Your task to perform on an android device: When is my next appointment? Image 0: 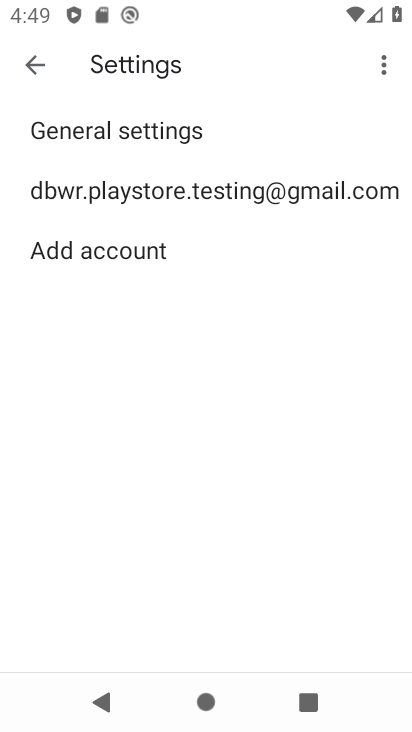
Step 0: press home button
Your task to perform on an android device: When is my next appointment? Image 1: 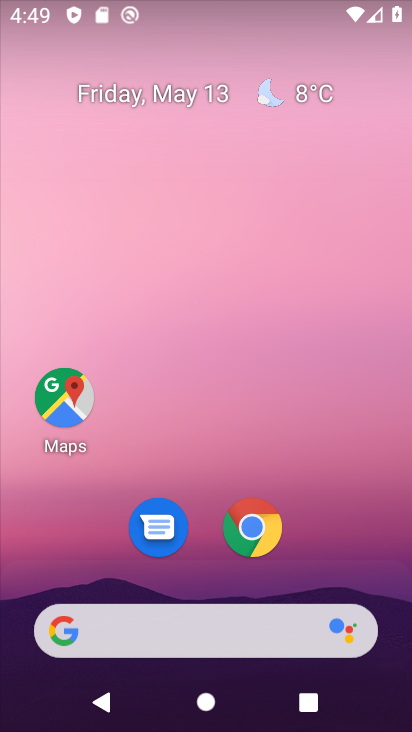
Step 1: drag from (175, 587) to (219, 113)
Your task to perform on an android device: When is my next appointment? Image 2: 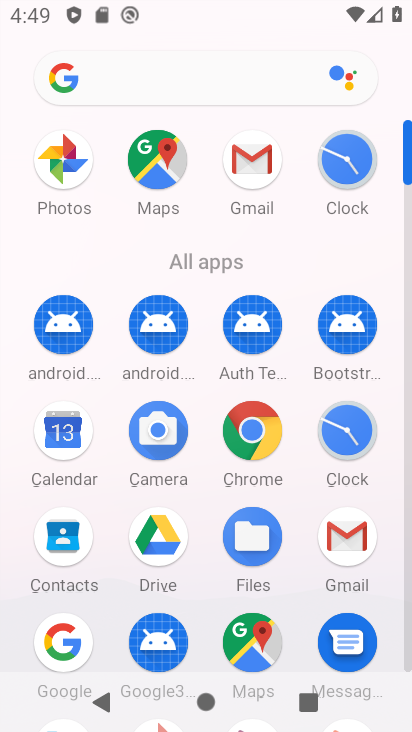
Step 2: click (64, 441)
Your task to perform on an android device: When is my next appointment? Image 3: 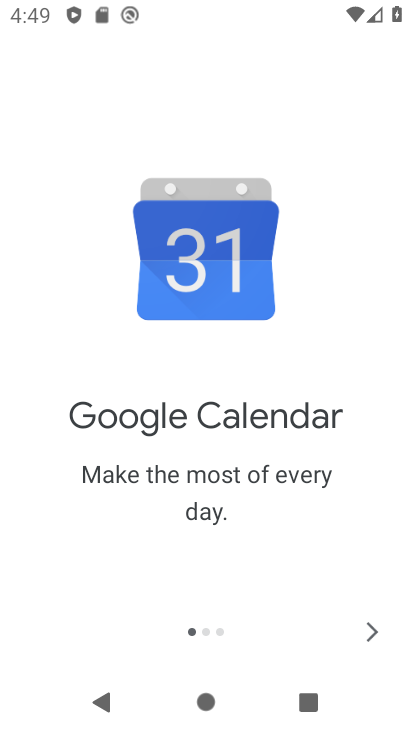
Step 3: click (362, 641)
Your task to perform on an android device: When is my next appointment? Image 4: 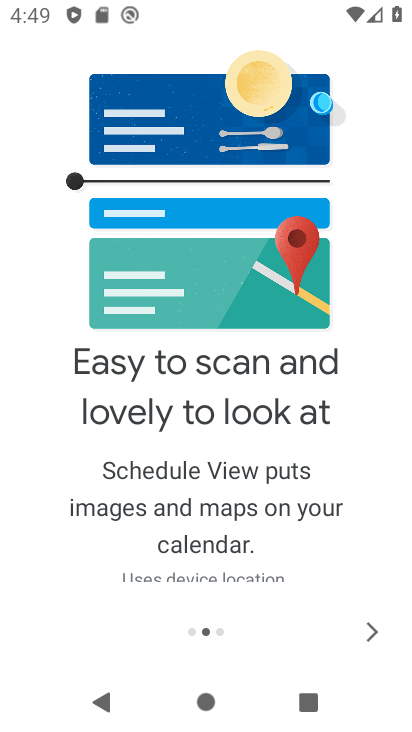
Step 4: click (362, 641)
Your task to perform on an android device: When is my next appointment? Image 5: 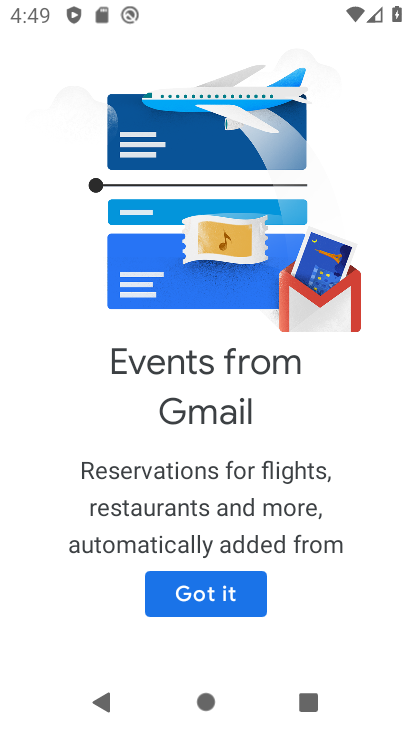
Step 5: click (214, 599)
Your task to perform on an android device: When is my next appointment? Image 6: 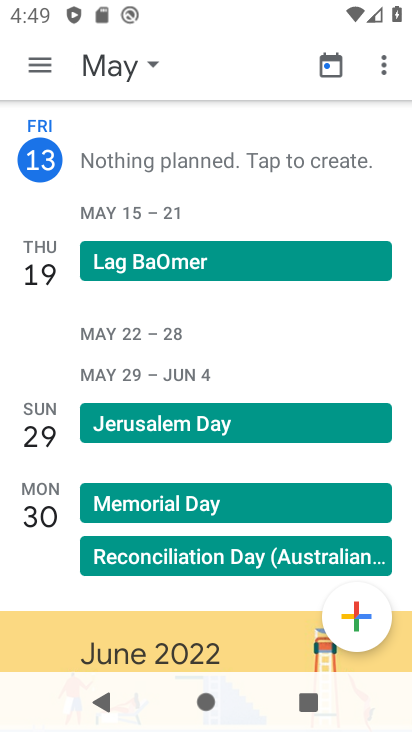
Step 6: task complete